Your task to perform on an android device: Open the phone app and click the voicemail tab. Image 0: 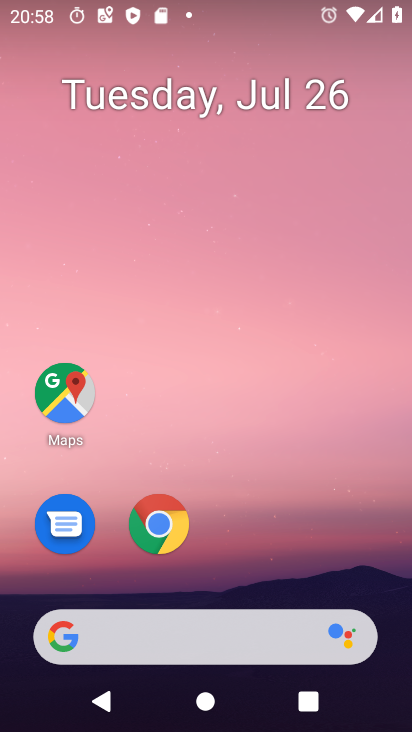
Step 0: drag from (253, 527) to (271, 36)
Your task to perform on an android device: Open the phone app and click the voicemail tab. Image 1: 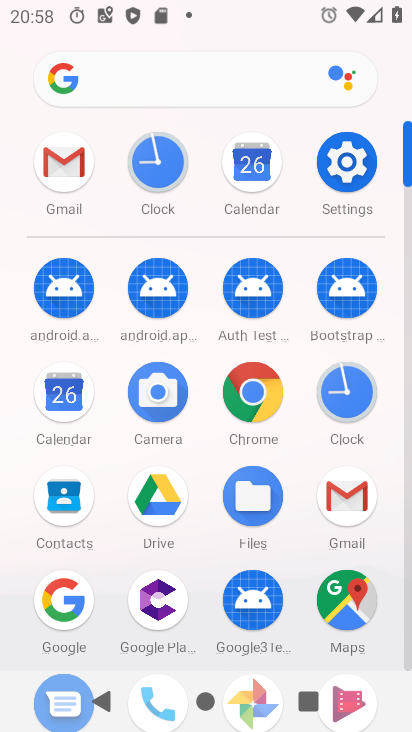
Step 1: drag from (236, 436) to (244, 232)
Your task to perform on an android device: Open the phone app and click the voicemail tab. Image 2: 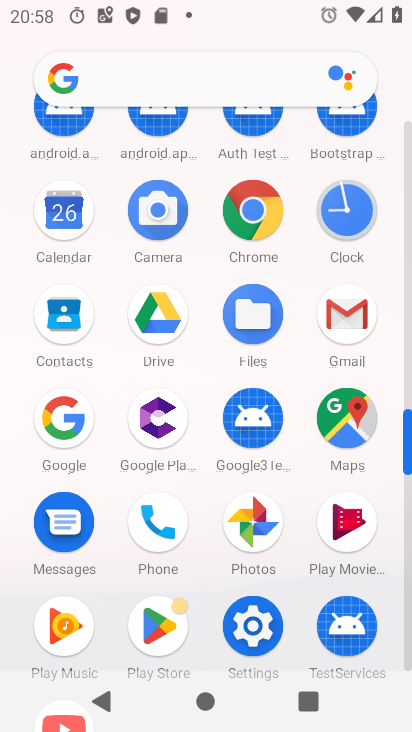
Step 2: click (158, 518)
Your task to perform on an android device: Open the phone app and click the voicemail tab. Image 3: 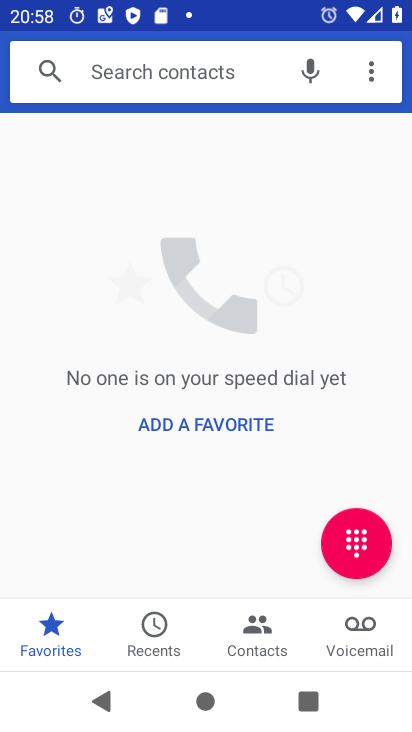
Step 3: click (370, 635)
Your task to perform on an android device: Open the phone app and click the voicemail tab. Image 4: 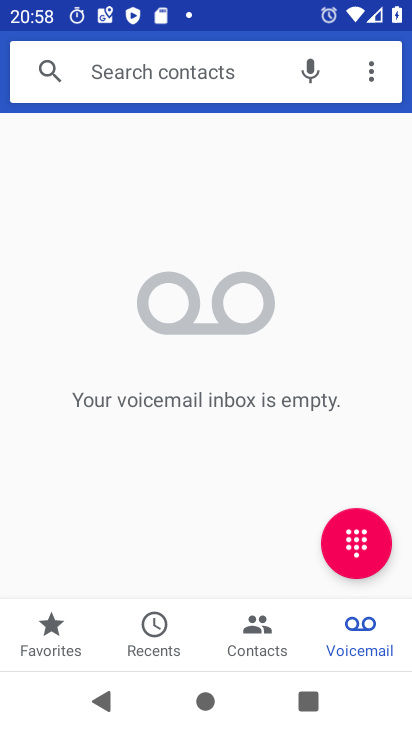
Step 4: task complete